Your task to perform on an android device: Open wifi settings Image 0: 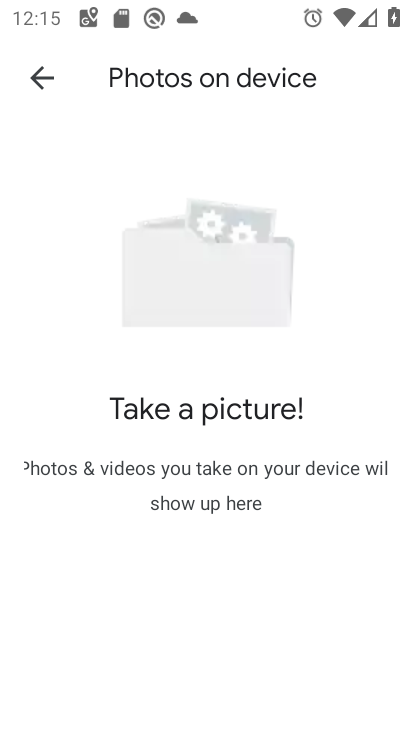
Step 0: press home button
Your task to perform on an android device: Open wifi settings Image 1: 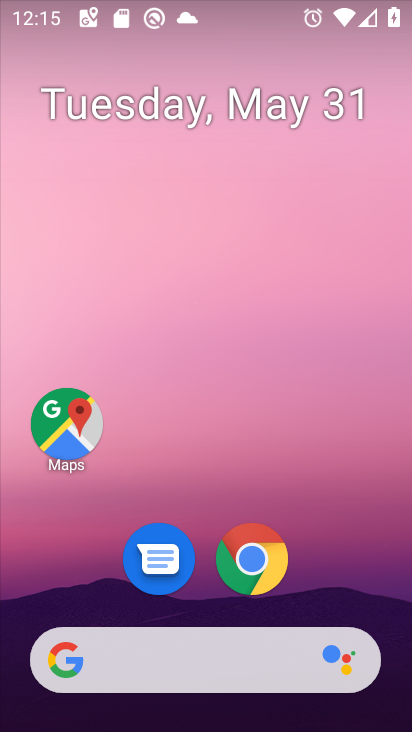
Step 1: drag from (364, 600) to (249, 151)
Your task to perform on an android device: Open wifi settings Image 2: 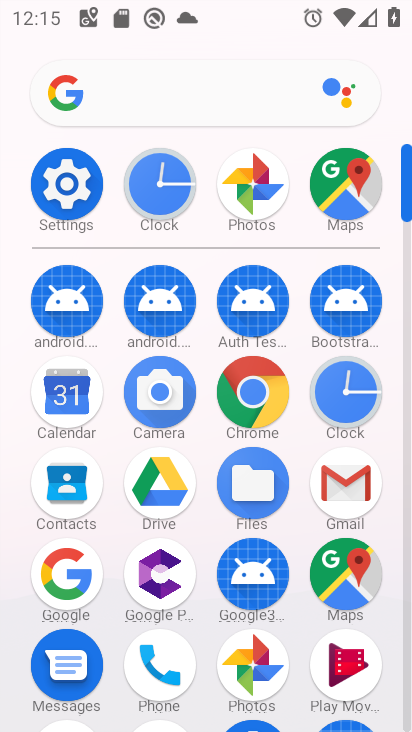
Step 2: click (77, 190)
Your task to perform on an android device: Open wifi settings Image 3: 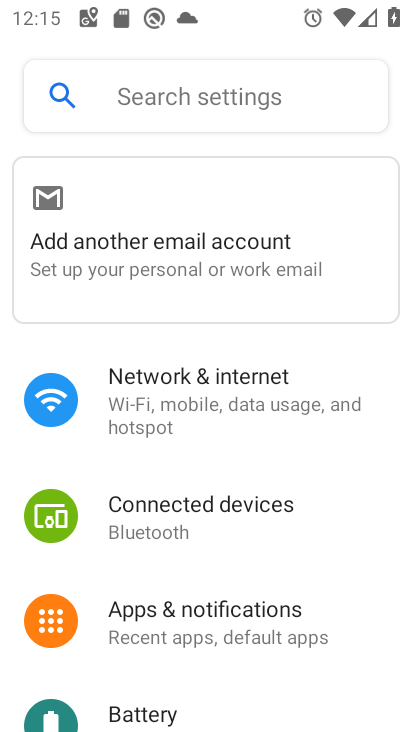
Step 3: click (156, 374)
Your task to perform on an android device: Open wifi settings Image 4: 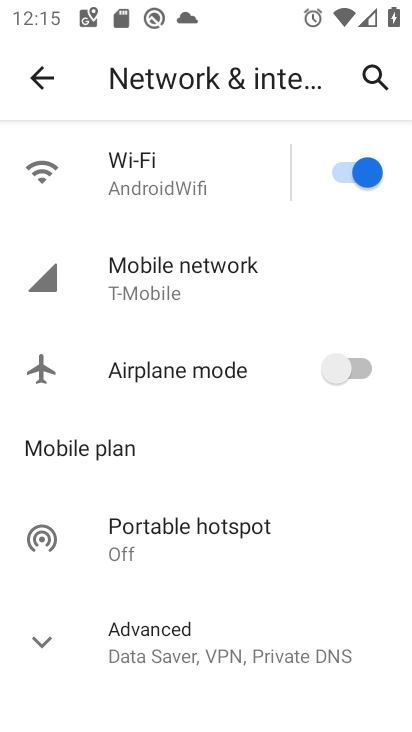
Step 4: click (142, 172)
Your task to perform on an android device: Open wifi settings Image 5: 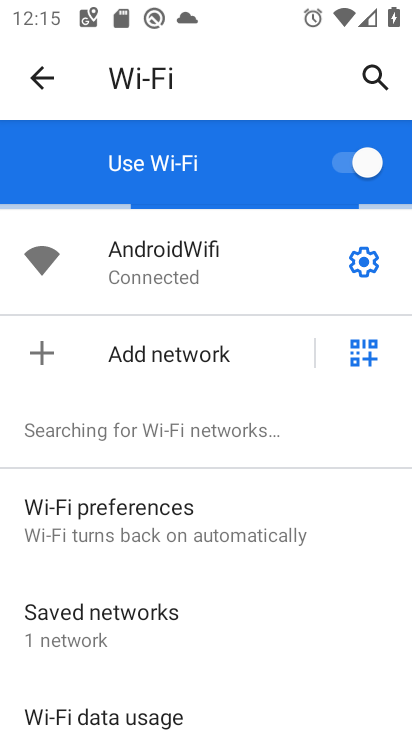
Step 5: task complete